Your task to perform on an android device: toggle pop-ups in chrome Image 0: 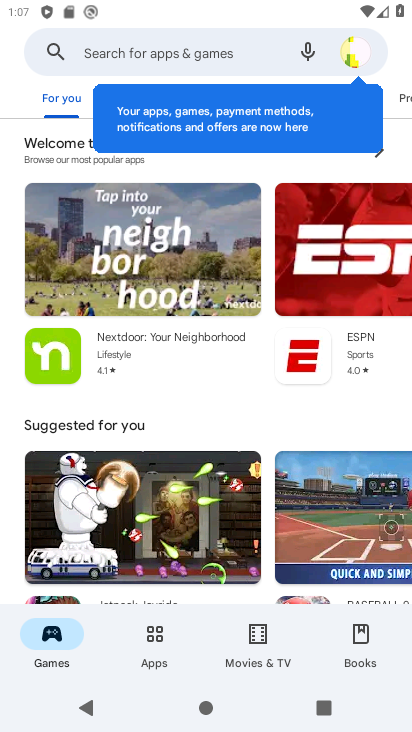
Step 0: press home button
Your task to perform on an android device: toggle pop-ups in chrome Image 1: 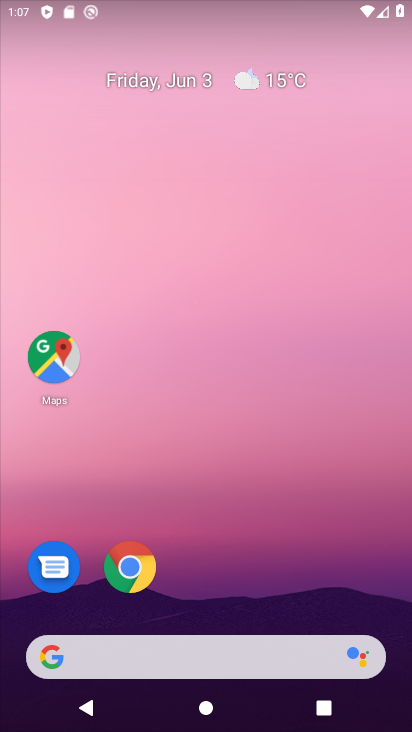
Step 1: click (122, 560)
Your task to perform on an android device: toggle pop-ups in chrome Image 2: 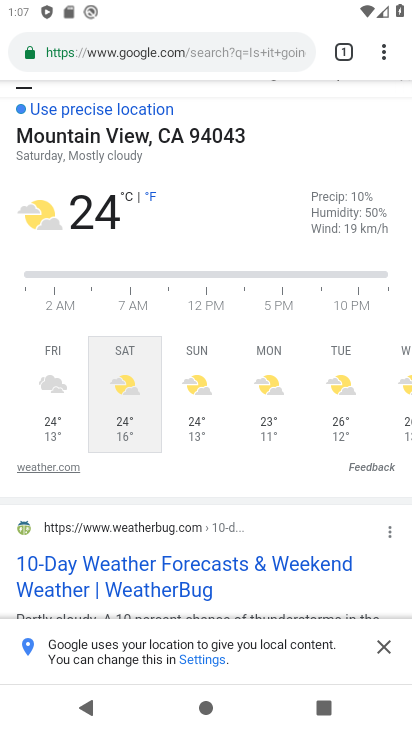
Step 2: click (381, 43)
Your task to perform on an android device: toggle pop-ups in chrome Image 3: 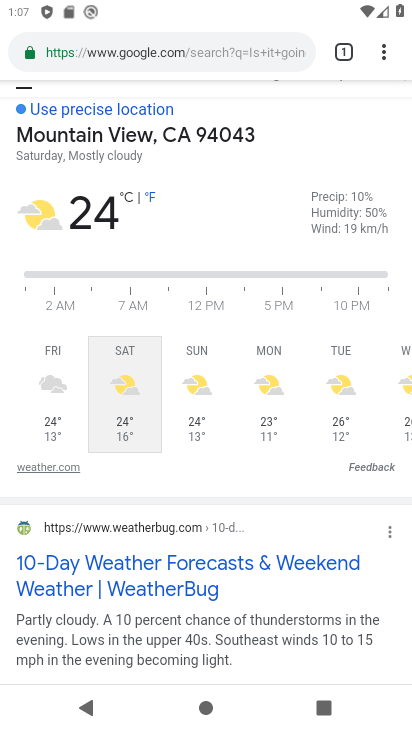
Step 3: drag from (385, 51) to (185, 577)
Your task to perform on an android device: toggle pop-ups in chrome Image 4: 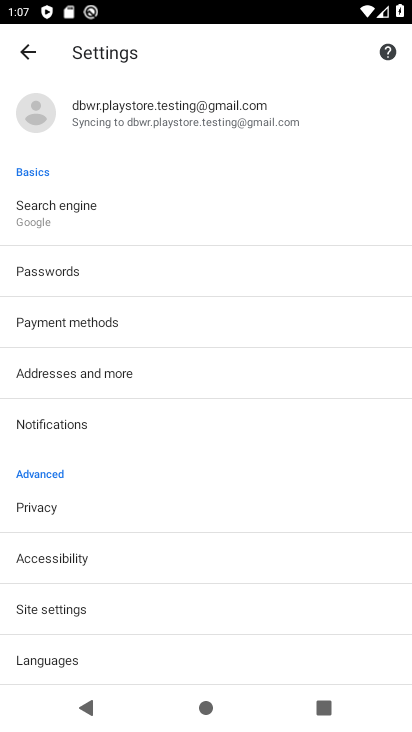
Step 4: click (48, 598)
Your task to perform on an android device: toggle pop-ups in chrome Image 5: 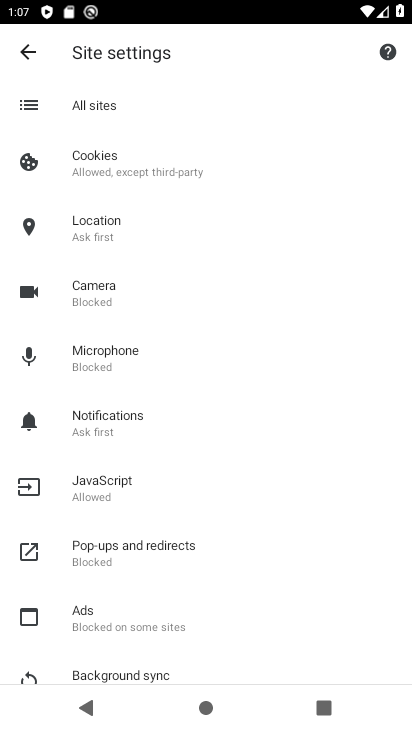
Step 5: click (123, 554)
Your task to perform on an android device: toggle pop-ups in chrome Image 6: 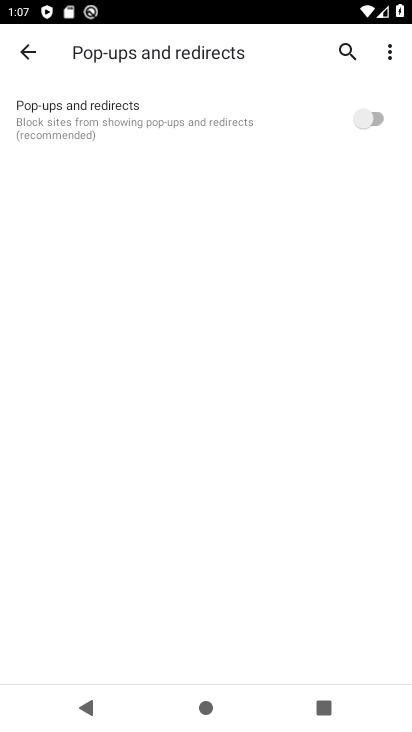
Step 6: click (362, 112)
Your task to perform on an android device: toggle pop-ups in chrome Image 7: 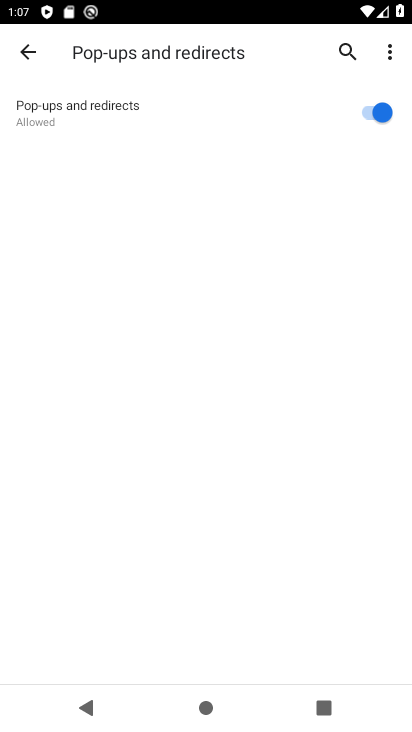
Step 7: task complete